Your task to perform on an android device: open a bookmark in the chrome app Image 0: 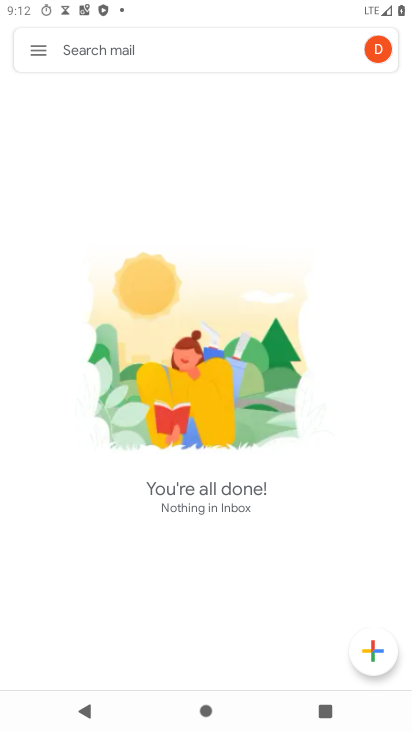
Step 0: press back button
Your task to perform on an android device: open a bookmark in the chrome app Image 1: 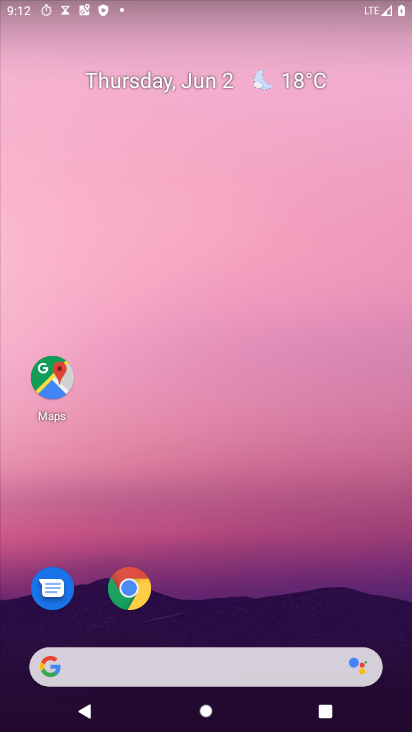
Step 1: click (126, 588)
Your task to perform on an android device: open a bookmark in the chrome app Image 2: 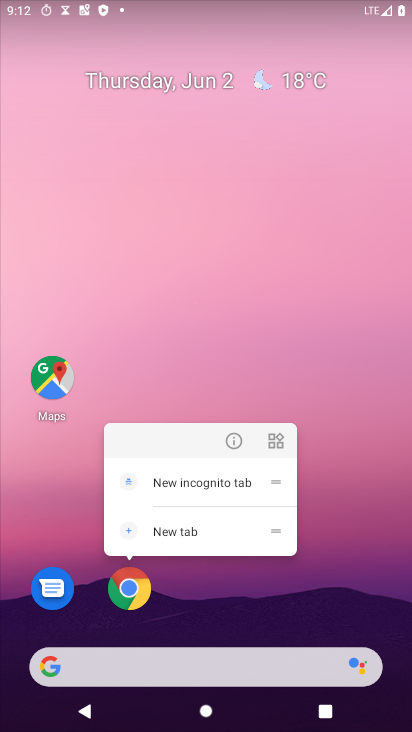
Step 2: click (130, 596)
Your task to perform on an android device: open a bookmark in the chrome app Image 3: 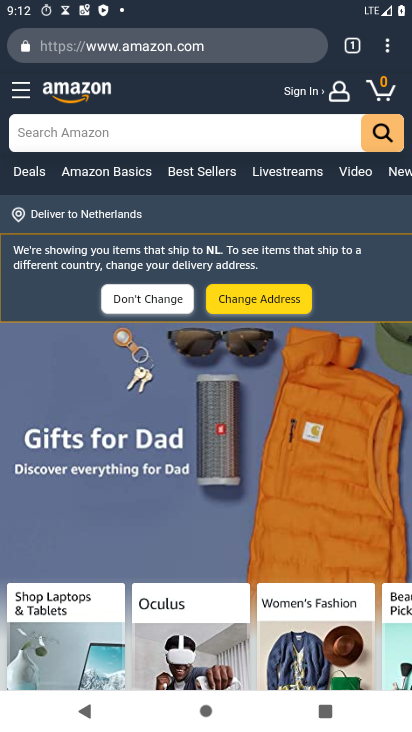
Step 3: drag from (386, 49) to (261, 178)
Your task to perform on an android device: open a bookmark in the chrome app Image 4: 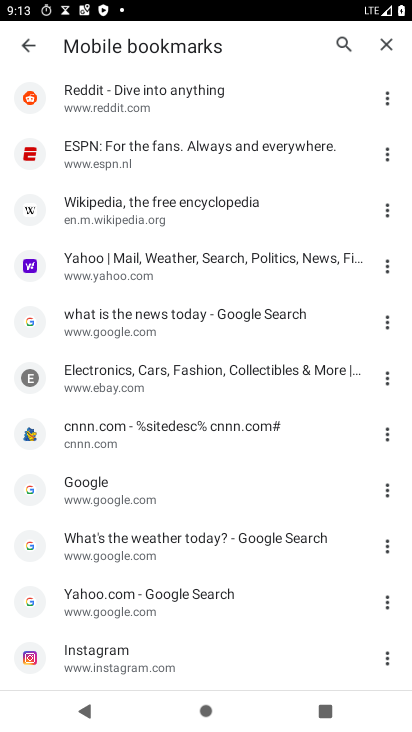
Step 4: click (119, 144)
Your task to perform on an android device: open a bookmark in the chrome app Image 5: 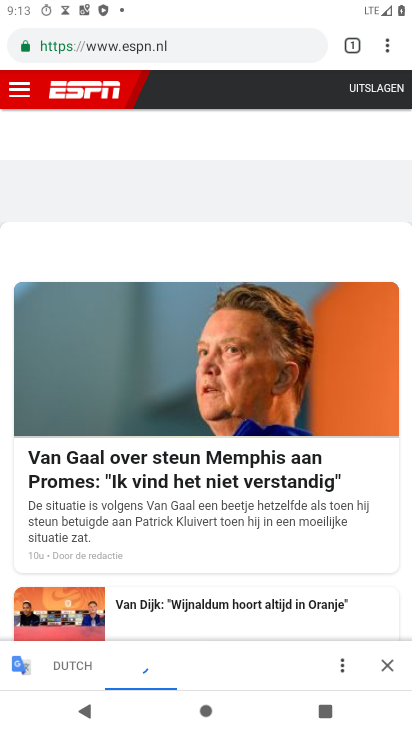
Step 5: task complete